Your task to perform on an android device: Open Wikipedia Image 0: 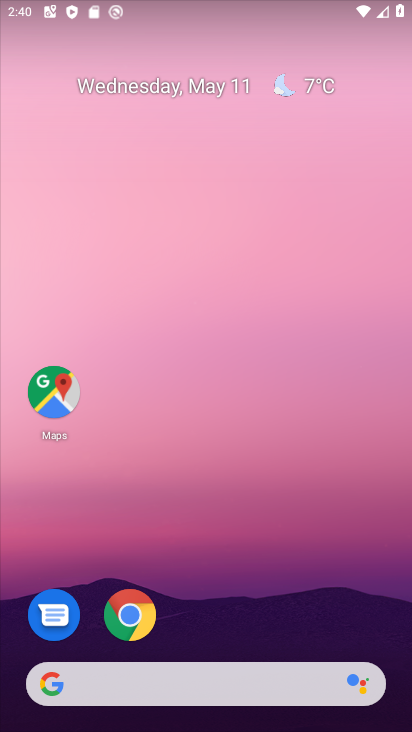
Step 0: click (131, 618)
Your task to perform on an android device: Open Wikipedia Image 1: 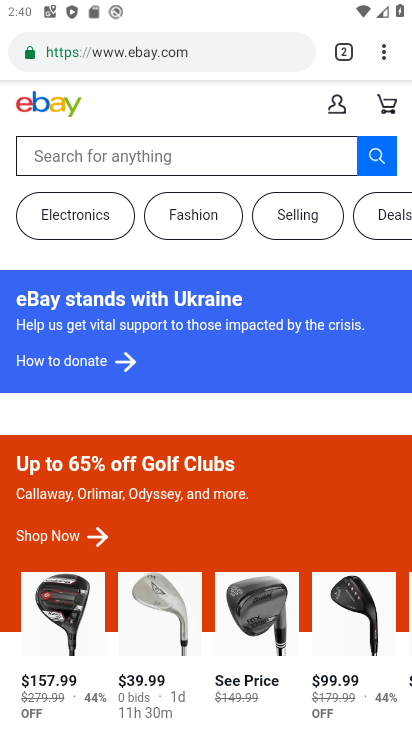
Step 1: click (194, 49)
Your task to perform on an android device: Open Wikipedia Image 2: 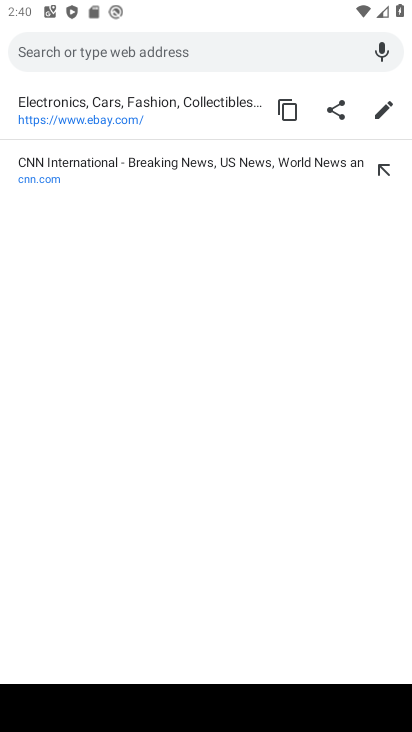
Step 2: type "wiipedia"
Your task to perform on an android device: Open Wikipedia Image 3: 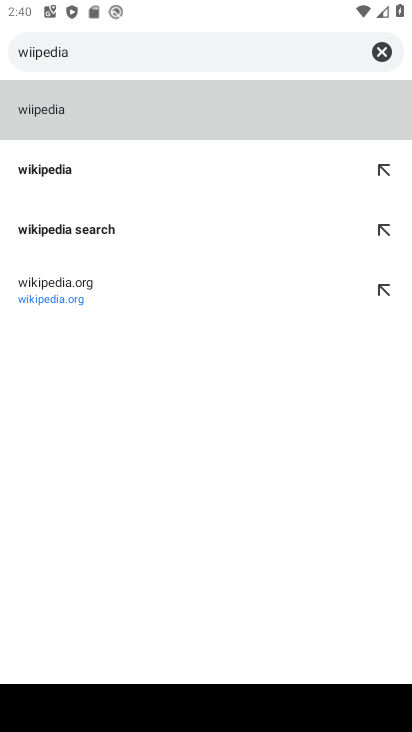
Step 3: click (47, 103)
Your task to perform on an android device: Open Wikipedia Image 4: 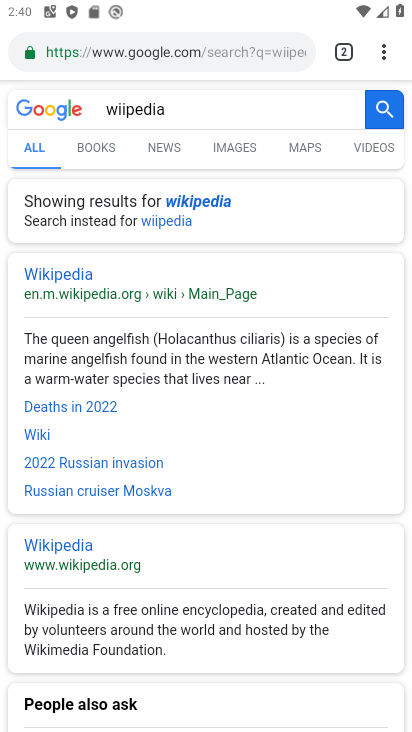
Step 4: click (87, 289)
Your task to perform on an android device: Open Wikipedia Image 5: 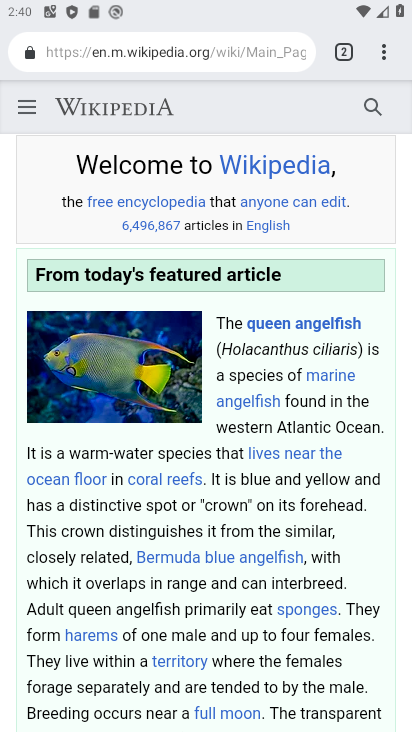
Step 5: task complete